Your task to perform on an android device: show emergency info Image 0: 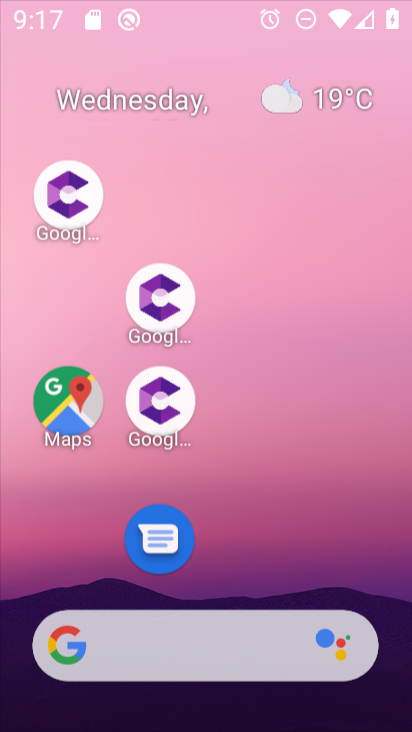
Step 0: drag from (319, 536) to (248, 33)
Your task to perform on an android device: show emergency info Image 1: 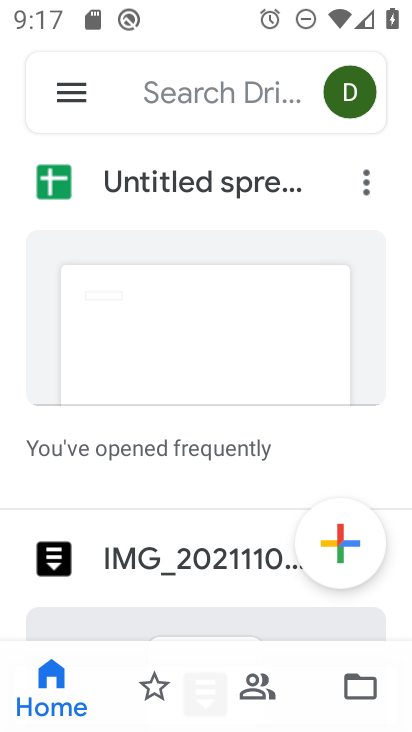
Step 1: press home button
Your task to perform on an android device: show emergency info Image 2: 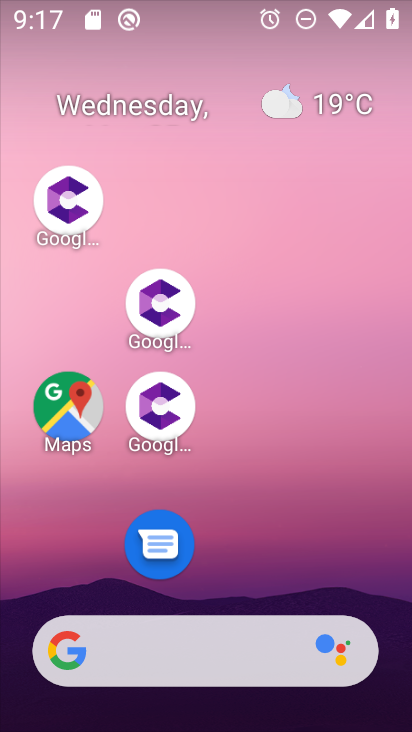
Step 2: drag from (291, 470) to (200, 50)
Your task to perform on an android device: show emergency info Image 3: 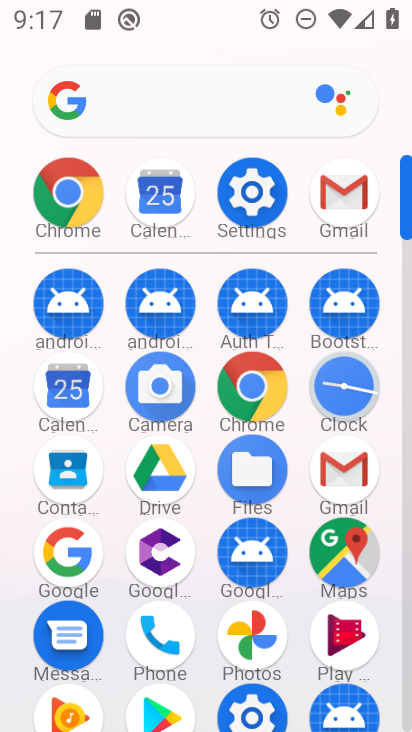
Step 3: click (253, 194)
Your task to perform on an android device: show emergency info Image 4: 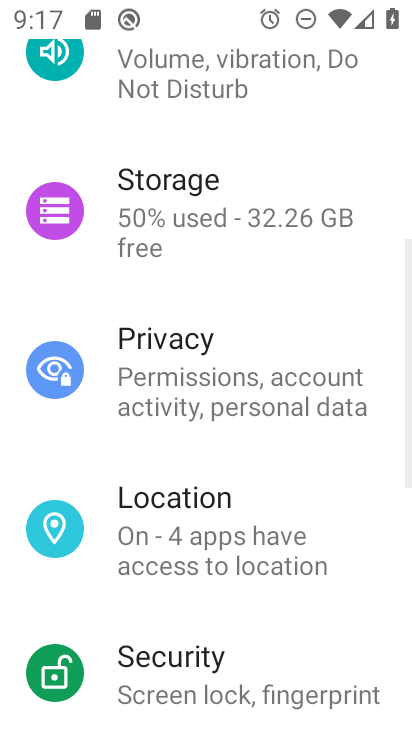
Step 4: drag from (318, 615) to (287, 123)
Your task to perform on an android device: show emergency info Image 5: 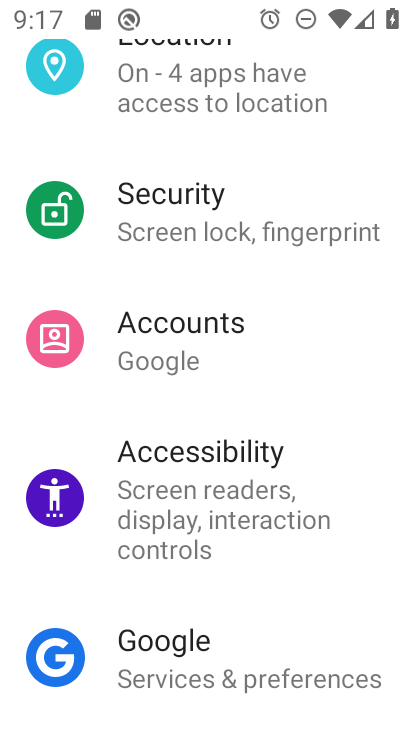
Step 5: drag from (285, 579) to (257, 188)
Your task to perform on an android device: show emergency info Image 6: 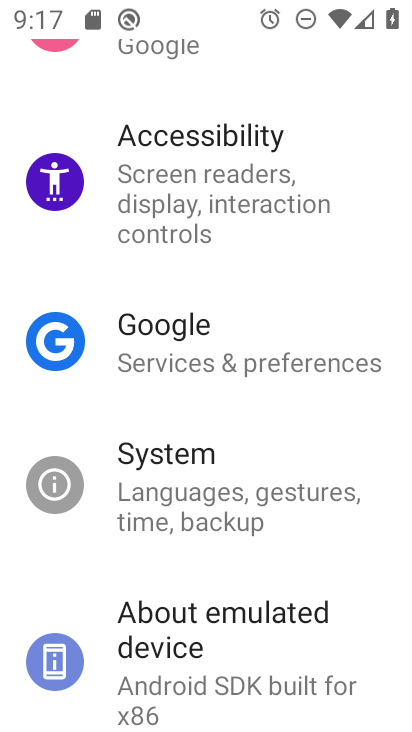
Step 6: click (195, 641)
Your task to perform on an android device: show emergency info Image 7: 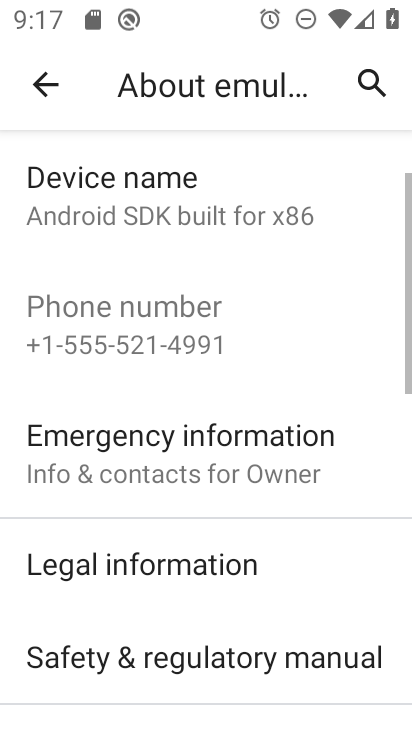
Step 7: click (165, 427)
Your task to perform on an android device: show emergency info Image 8: 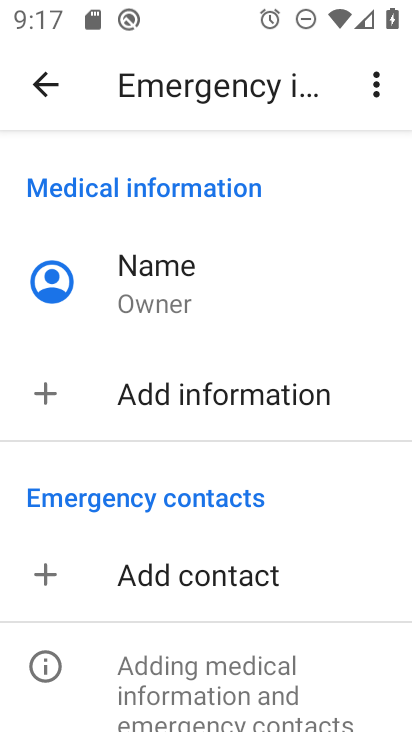
Step 8: task complete